Your task to perform on an android device: Search for pizza restaurants on Maps Image 0: 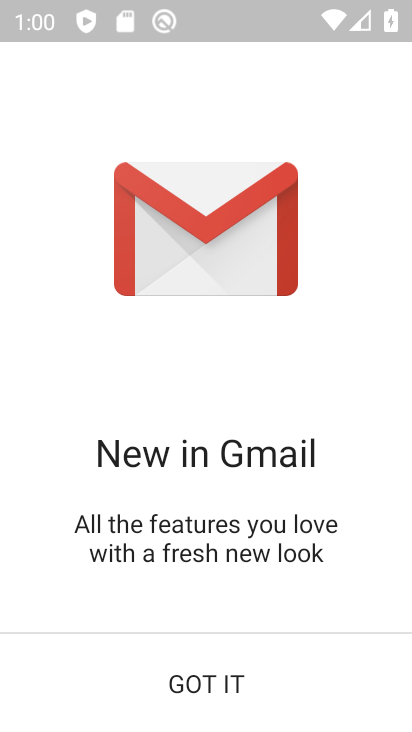
Step 0: press home button
Your task to perform on an android device: Search for pizza restaurants on Maps Image 1: 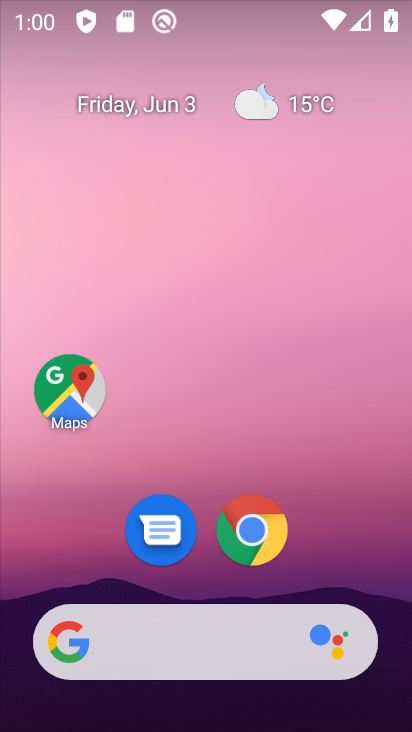
Step 1: click (64, 389)
Your task to perform on an android device: Search for pizza restaurants on Maps Image 2: 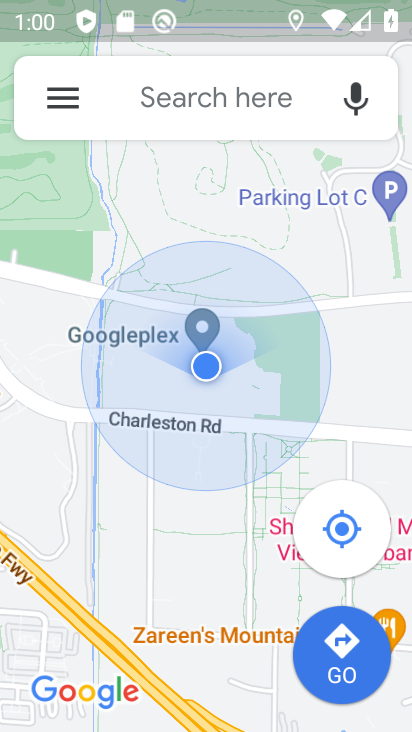
Step 2: click (212, 96)
Your task to perform on an android device: Search for pizza restaurants on Maps Image 3: 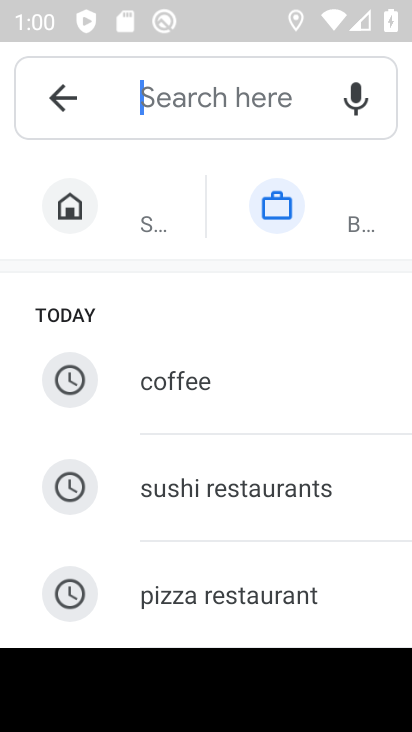
Step 3: click (233, 590)
Your task to perform on an android device: Search for pizza restaurants on Maps Image 4: 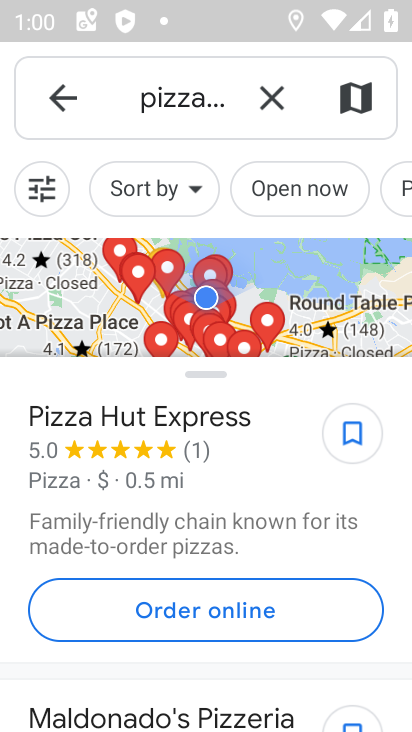
Step 4: task complete